Your task to perform on an android device: change the upload size in google photos Image 0: 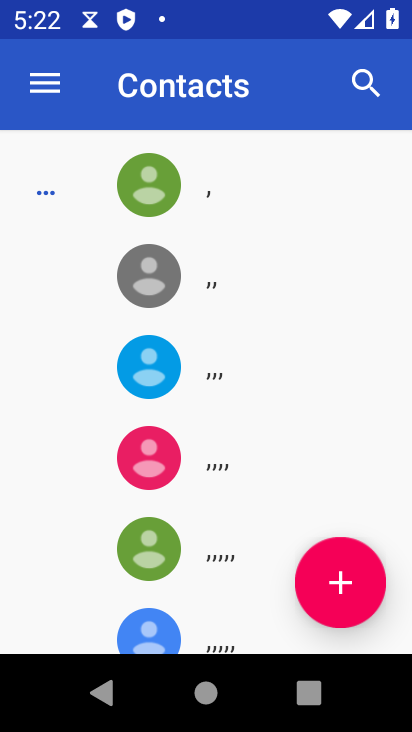
Step 0: press home button
Your task to perform on an android device: change the upload size in google photos Image 1: 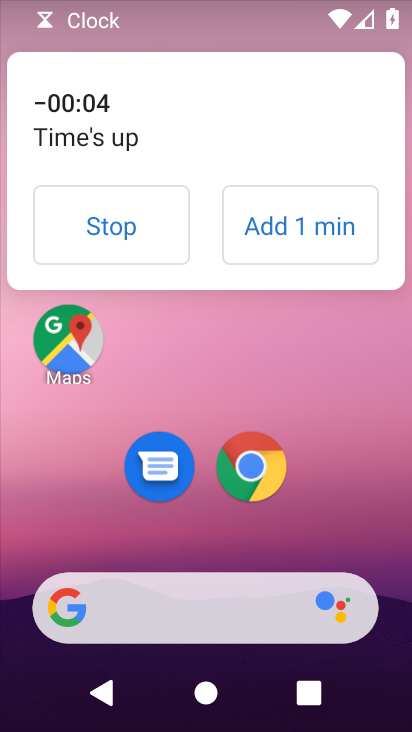
Step 1: click (80, 251)
Your task to perform on an android device: change the upload size in google photos Image 2: 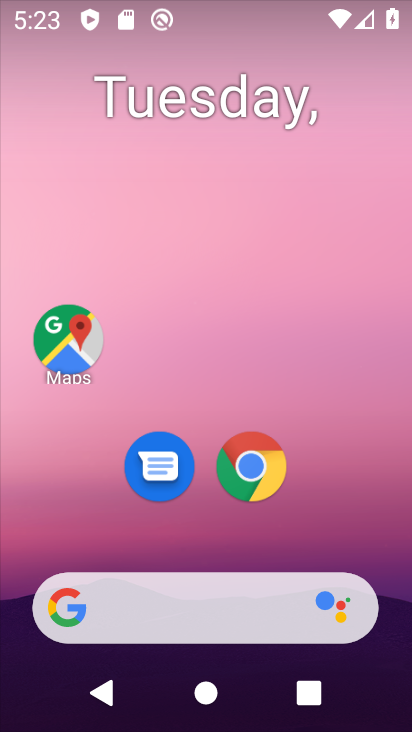
Step 2: drag from (340, 527) to (333, 69)
Your task to perform on an android device: change the upload size in google photos Image 3: 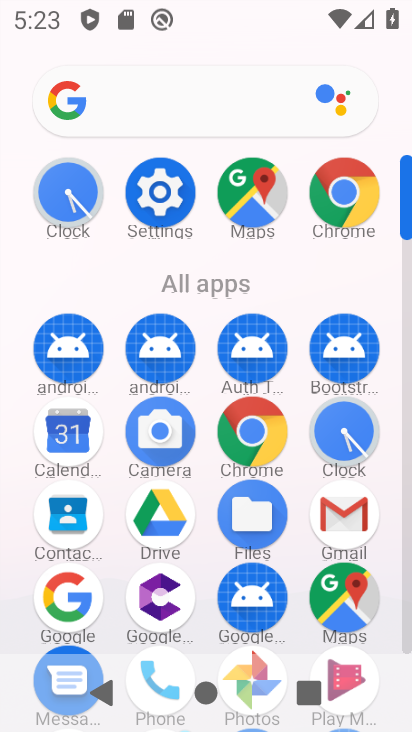
Step 3: click (406, 638)
Your task to perform on an android device: change the upload size in google photos Image 4: 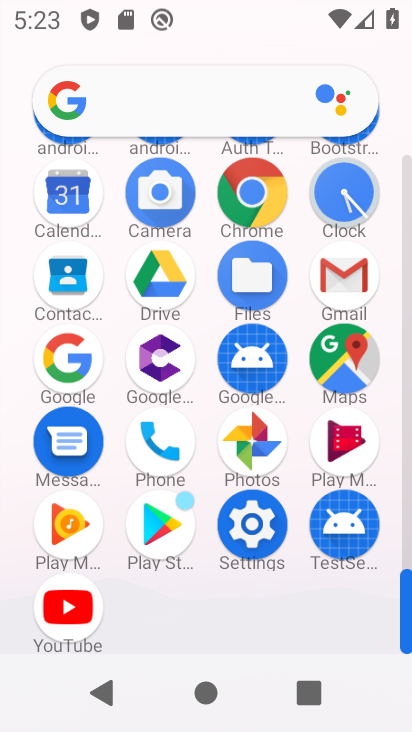
Step 4: click (250, 463)
Your task to perform on an android device: change the upload size in google photos Image 5: 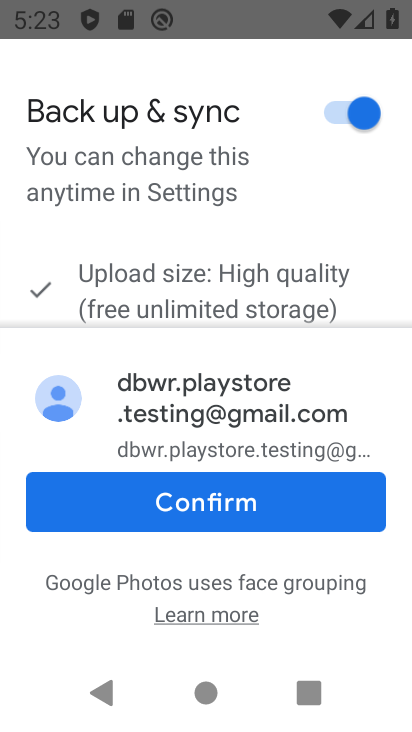
Step 5: click (238, 519)
Your task to perform on an android device: change the upload size in google photos Image 6: 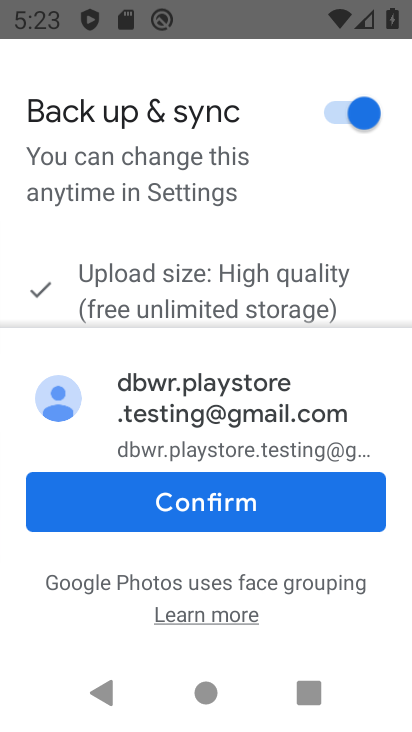
Step 6: click (238, 519)
Your task to perform on an android device: change the upload size in google photos Image 7: 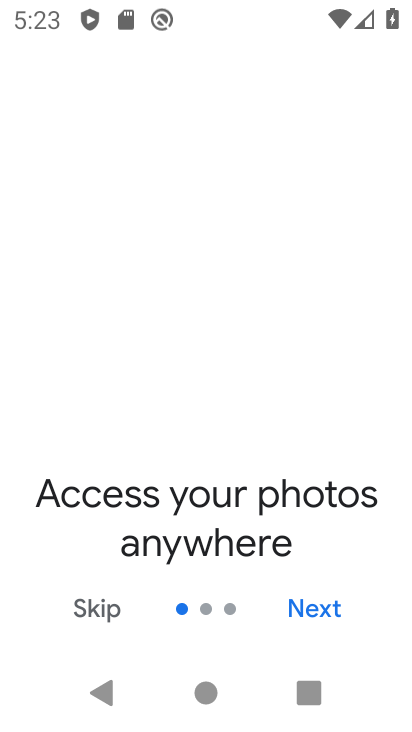
Step 7: click (295, 609)
Your task to perform on an android device: change the upload size in google photos Image 8: 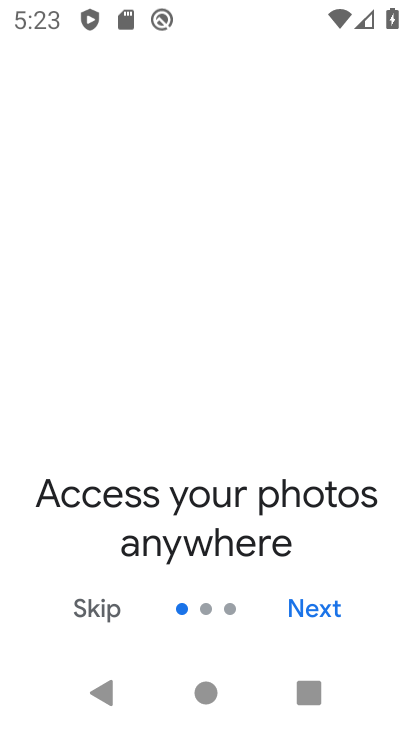
Step 8: click (295, 609)
Your task to perform on an android device: change the upload size in google photos Image 9: 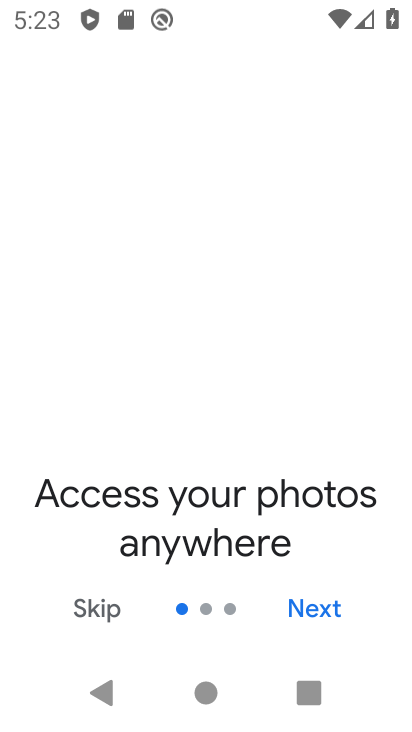
Step 9: click (295, 609)
Your task to perform on an android device: change the upload size in google photos Image 10: 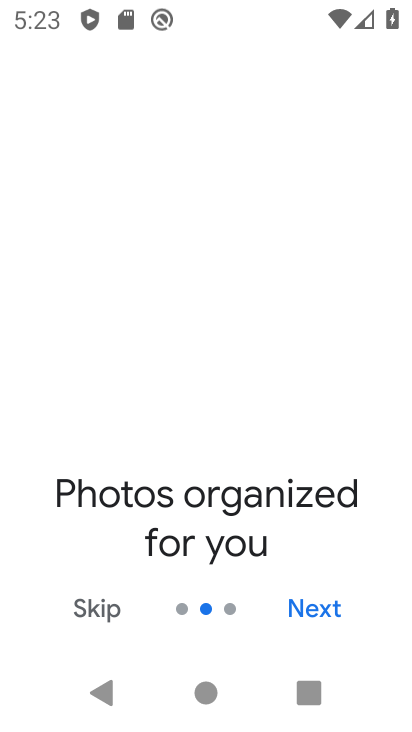
Step 10: click (295, 609)
Your task to perform on an android device: change the upload size in google photos Image 11: 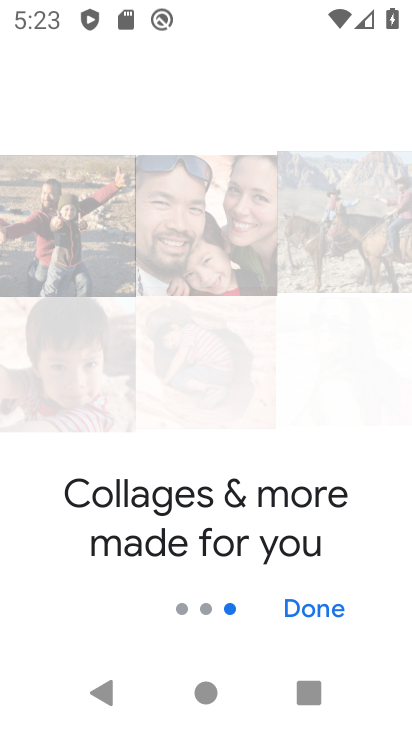
Step 11: click (295, 609)
Your task to perform on an android device: change the upload size in google photos Image 12: 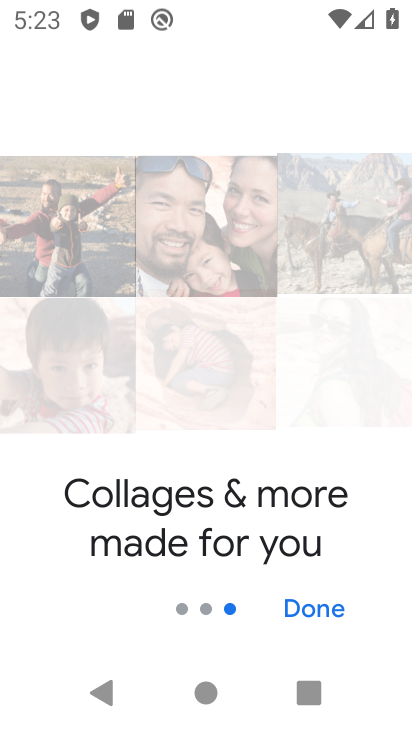
Step 12: click (295, 609)
Your task to perform on an android device: change the upload size in google photos Image 13: 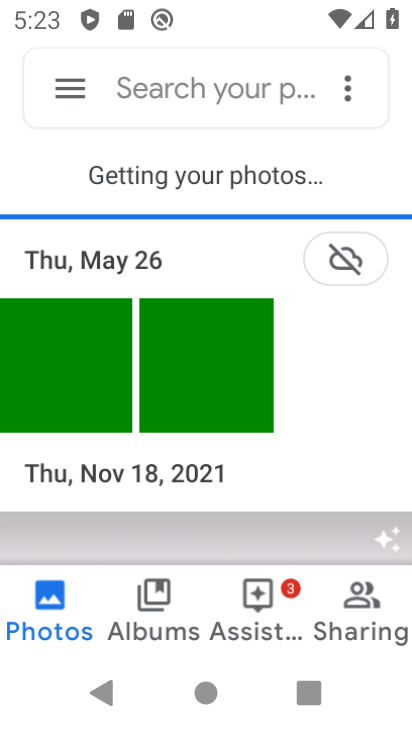
Step 13: click (295, 609)
Your task to perform on an android device: change the upload size in google photos Image 14: 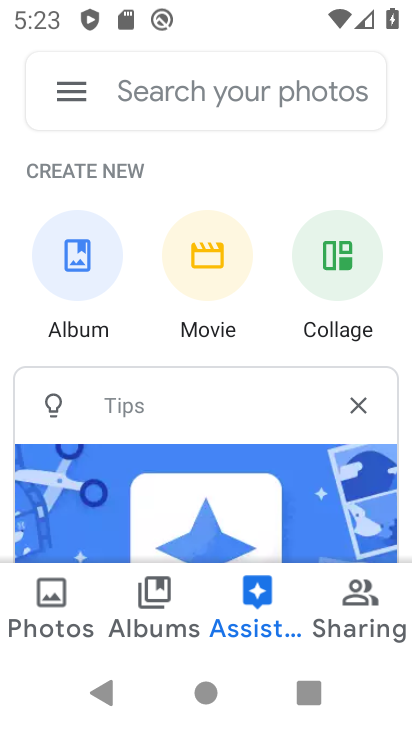
Step 14: click (78, 600)
Your task to perform on an android device: change the upload size in google photos Image 15: 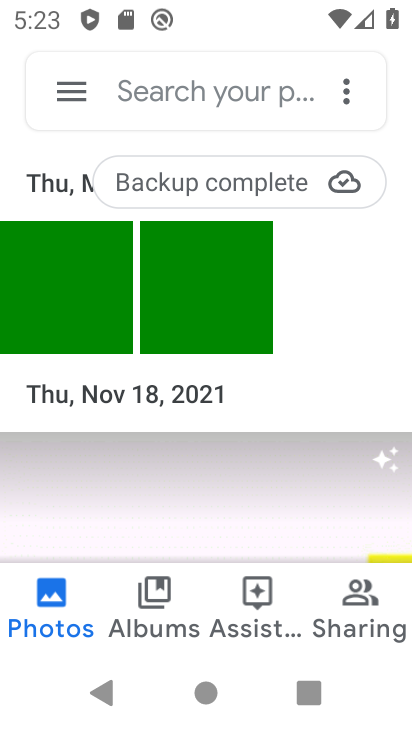
Step 15: click (85, 97)
Your task to perform on an android device: change the upload size in google photos Image 16: 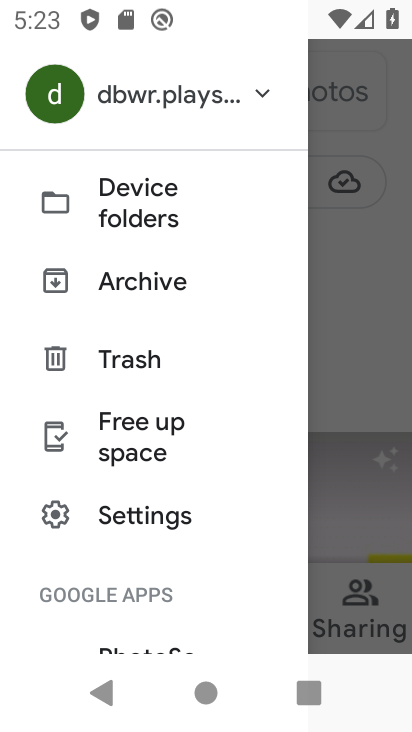
Step 16: click (164, 517)
Your task to perform on an android device: change the upload size in google photos Image 17: 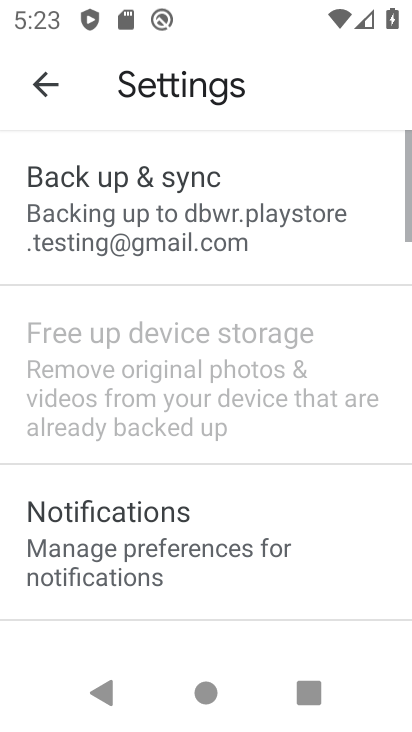
Step 17: click (166, 219)
Your task to perform on an android device: change the upload size in google photos Image 18: 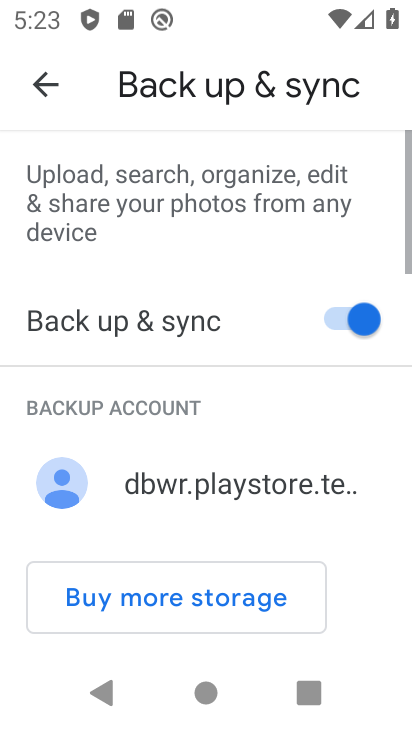
Step 18: drag from (248, 579) to (234, 124)
Your task to perform on an android device: change the upload size in google photos Image 19: 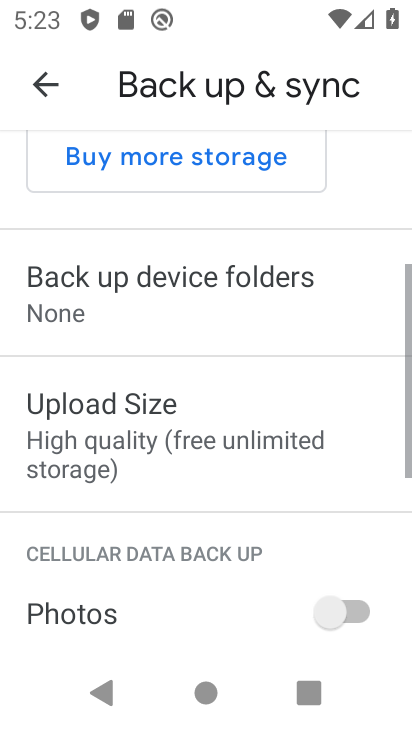
Step 19: drag from (270, 630) to (264, 511)
Your task to perform on an android device: change the upload size in google photos Image 20: 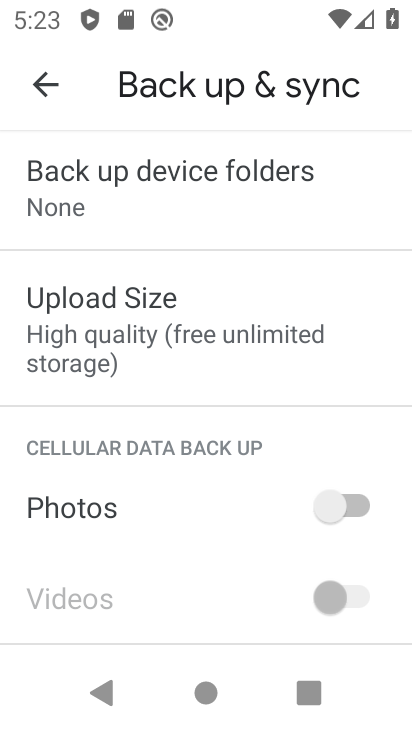
Step 20: click (225, 329)
Your task to perform on an android device: change the upload size in google photos Image 21: 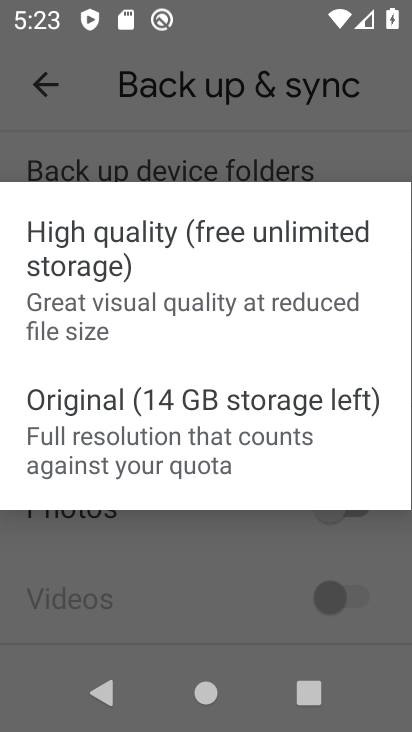
Step 21: click (151, 454)
Your task to perform on an android device: change the upload size in google photos Image 22: 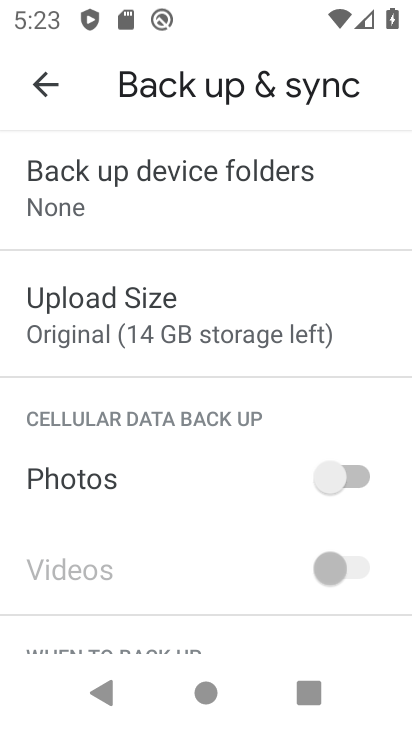
Step 22: task complete